Your task to perform on an android device: toggle priority inbox in the gmail app Image 0: 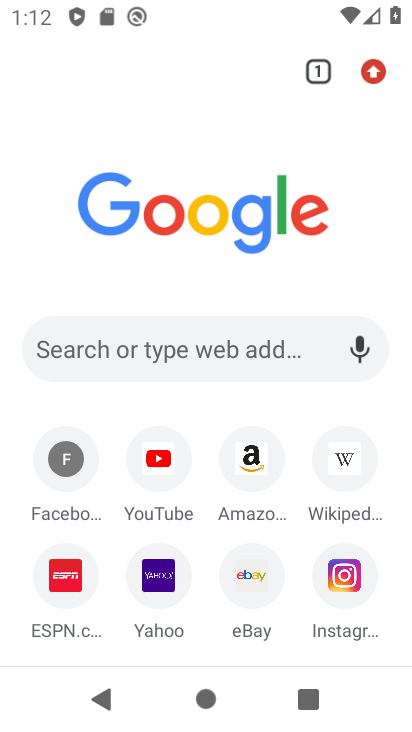
Step 0: press home button
Your task to perform on an android device: toggle priority inbox in the gmail app Image 1: 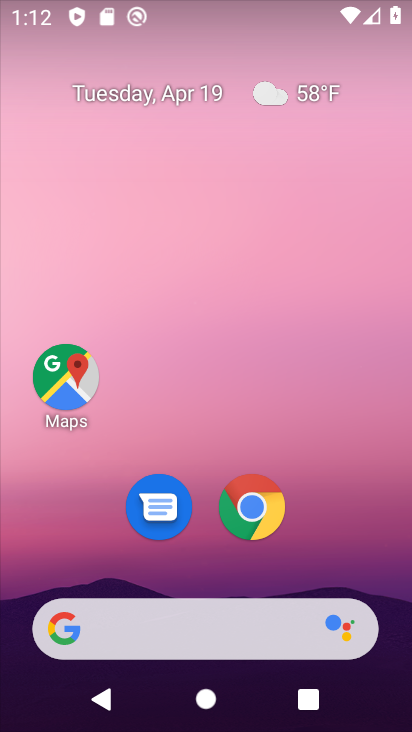
Step 1: drag from (197, 545) to (227, 193)
Your task to perform on an android device: toggle priority inbox in the gmail app Image 2: 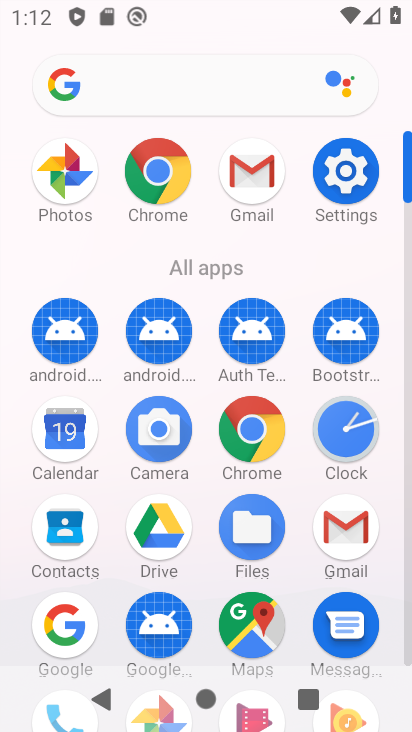
Step 2: click (258, 172)
Your task to perform on an android device: toggle priority inbox in the gmail app Image 3: 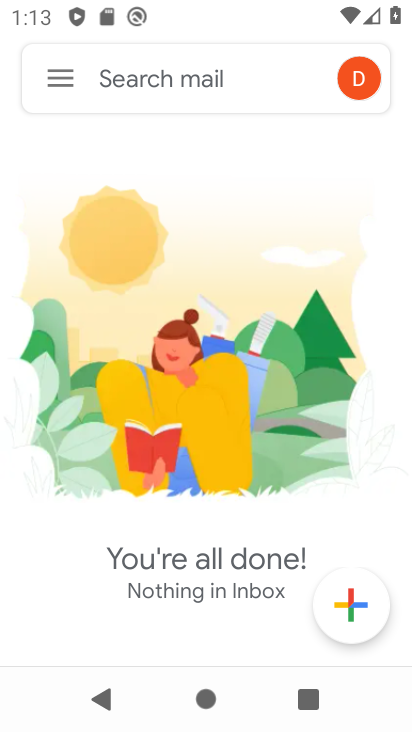
Step 3: click (59, 79)
Your task to perform on an android device: toggle priority inbox in the gmail app Image 4: 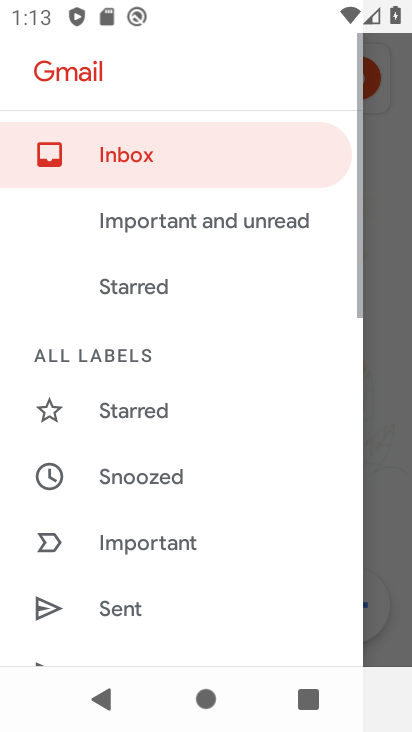
Step 4: drag from (150, 557) to (111, 114)
Your task to perform on an android device: toggle priority inbox in the gmail app Image 5: 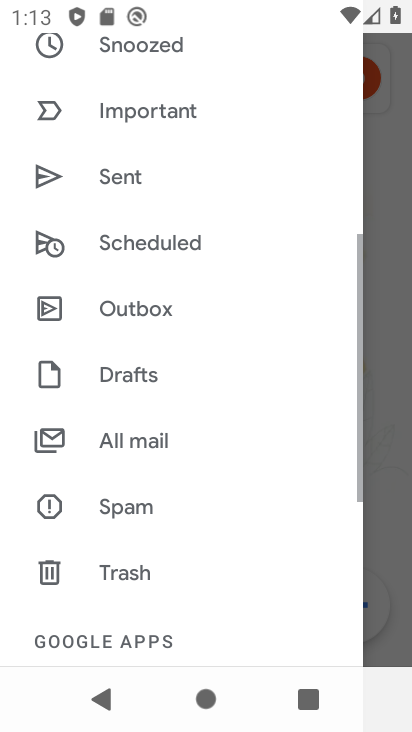
Step 5: drag from (168, 546) to (174, 174)
Your task to perform on an android device: toggle priority inbox in the gmail app Image 6: 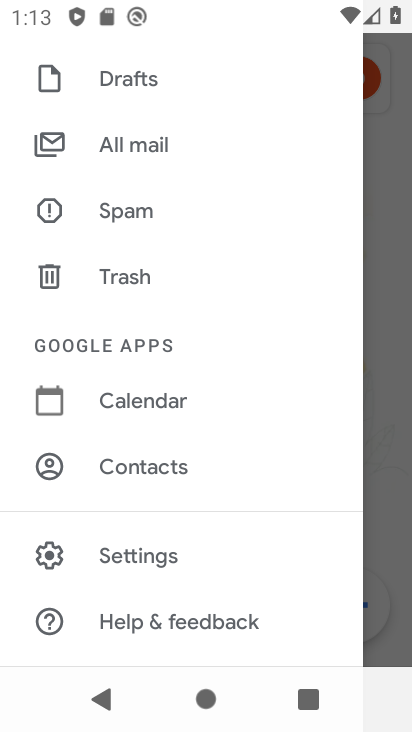
Step 6: click (130, 555)
Your task to perform on an android device: toggle priority inbox in the gmail app Image 7: 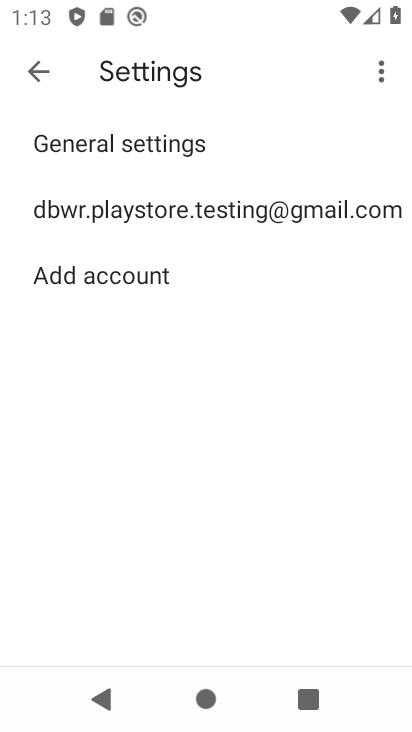
Step 7: click (117, 214)
Your task to perform on an android device: toggle priority inbox in the gmail app Image 8: 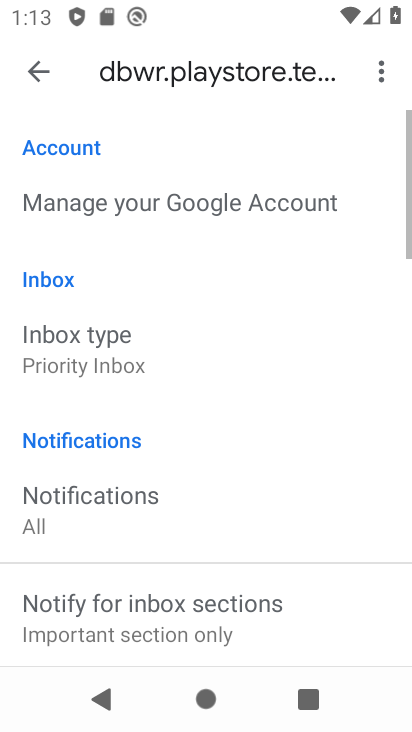
Step 8: click (80, 340)
Your task to perform on an android device: toggle priority inbox in the gmail app Image 9: 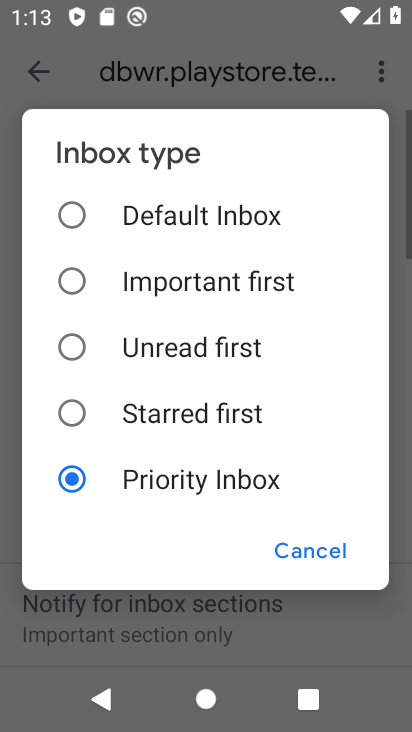
Step 9: click (79, 214)
Your task to perform on an android device: toggle priority inbox in the gmail app Image 10: 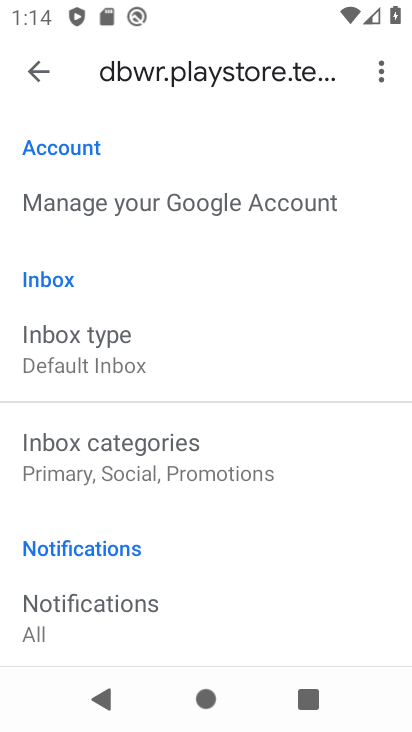
Step 10: task complete